Your task to perform on an android device: move a message to another label in the gmail app Image 0: 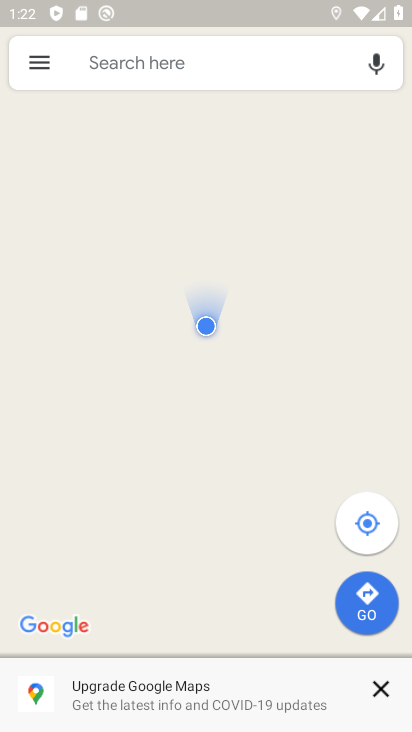
Step 0: press back button
Your task to perform on an android device: move a message to another label in the gmail app Image 1: 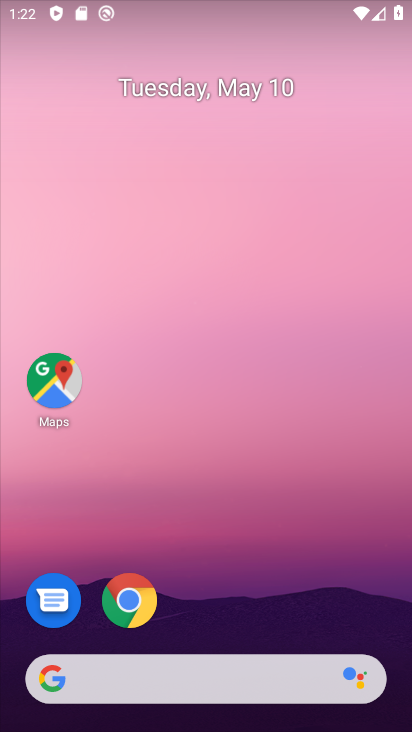
Step 1: drag from (253, 638) to (197, 28)
Your task to perform on an android device: move a message to another label in the gmail app Image 2: 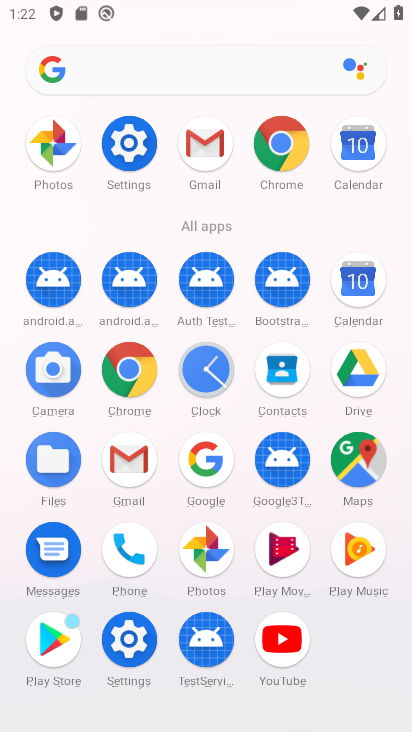
Step 2: click (142, 470)
Your task to perform on an android device: move a message to another label in the gmail app Image 3: 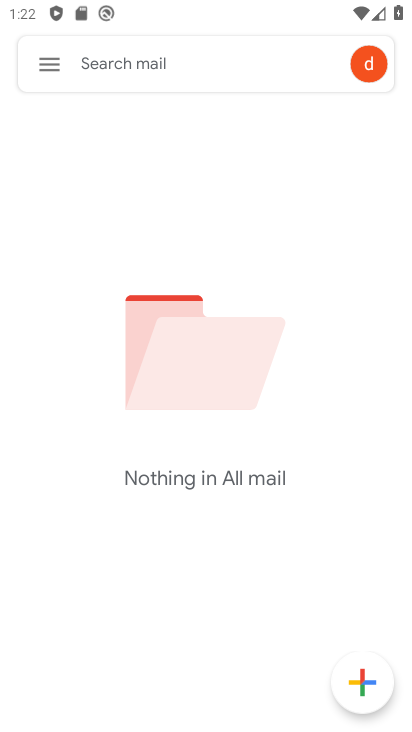
Step 3: click (41, 60)
Your task to perform on an android device: move a message to another label in the gmail app Image 4: 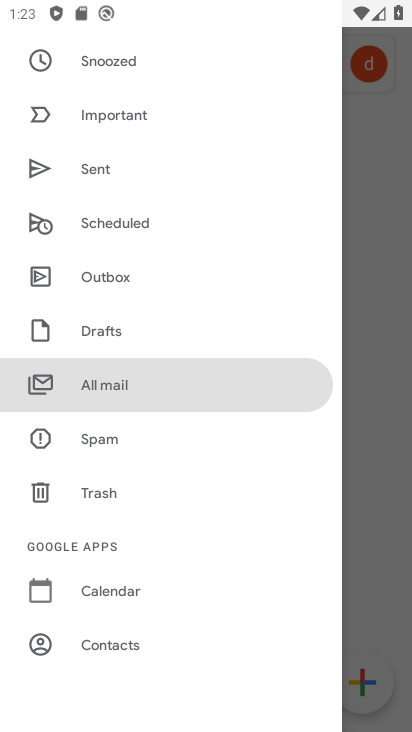
Step 4: drag from (99, 79) to (135, 595)
Your task to perform on an android device: move a message to another label in the gmail app Image 5: 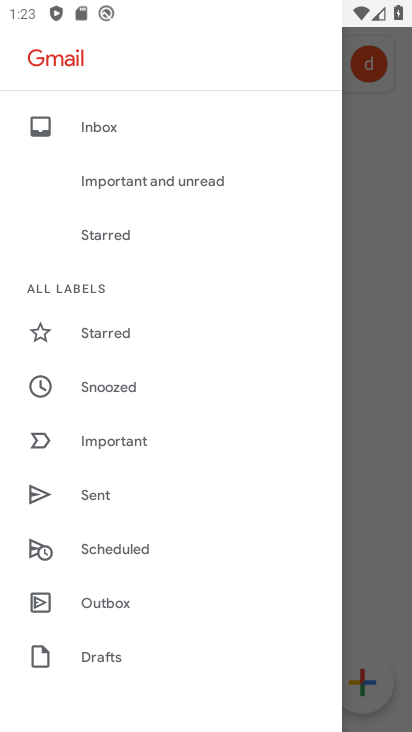
Step 5: click (91, 140)
Your task to perform on an android device: move a message to another label in the gmail app Image 6: 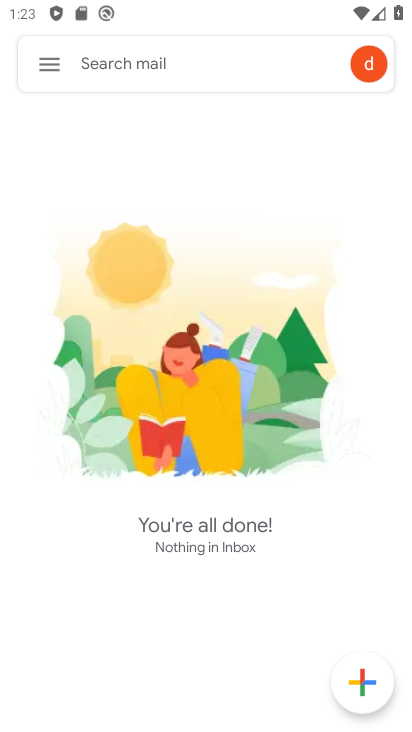
Step 6: task complete